Your task to perform on an android device: Open calendar and show me the second week of next month Image 0: 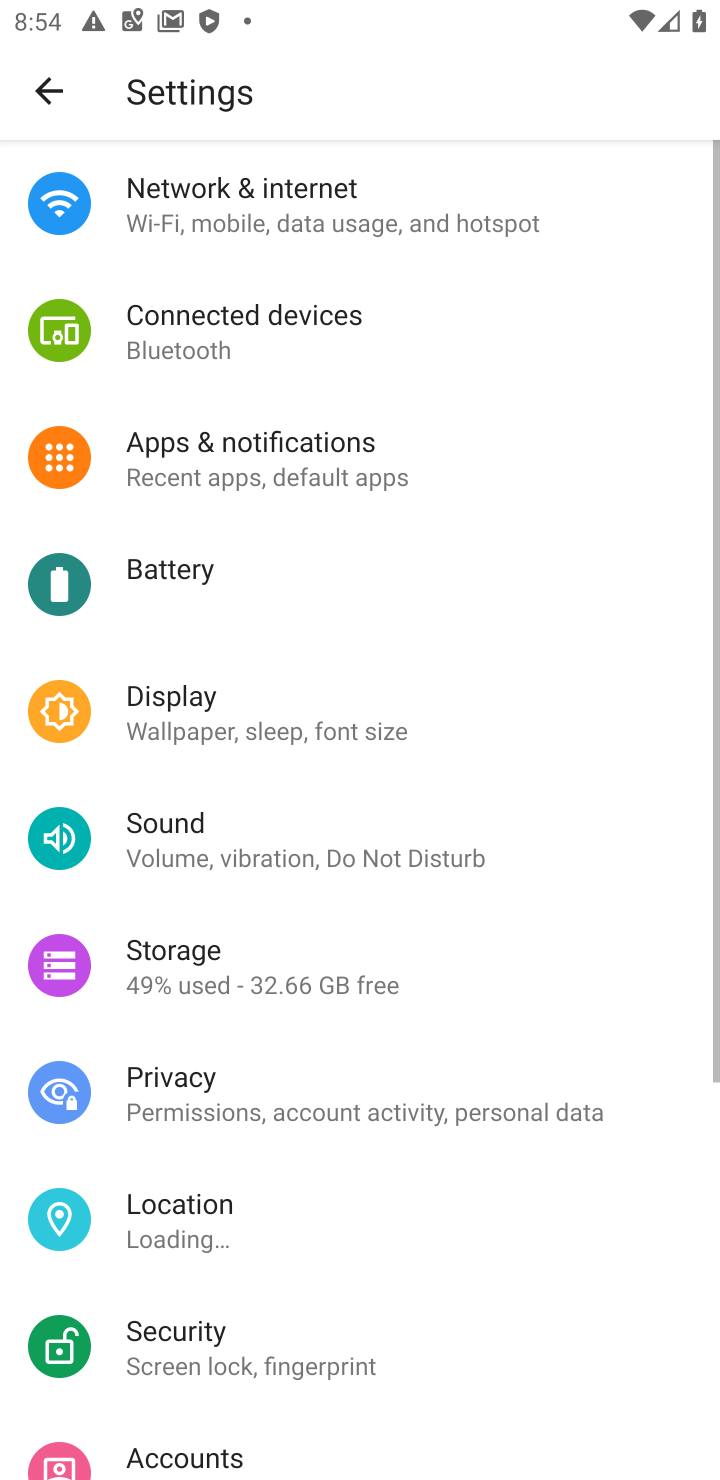
Step 0: press home button
Your task to perform on an android device: Open calendar and show me the second week of next month Image 1: 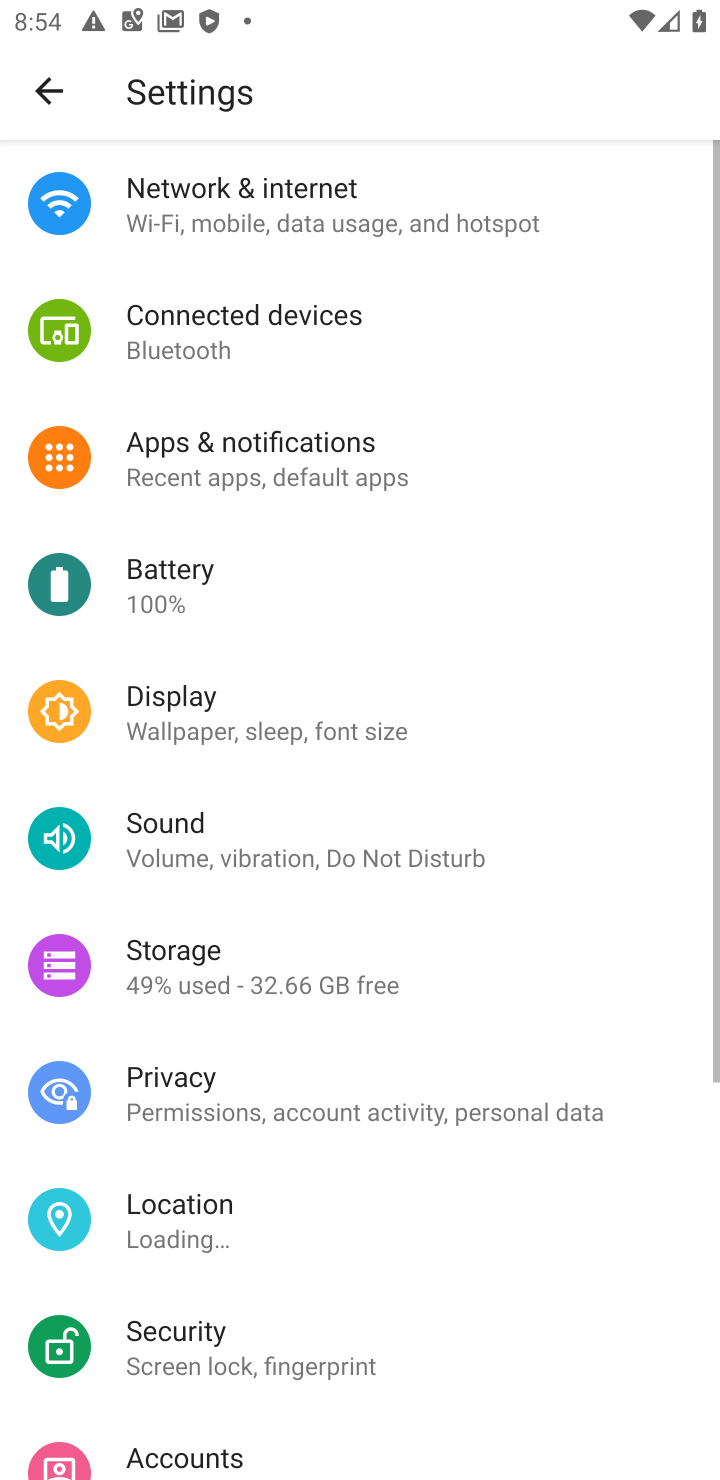
Step 1: press home button
Your task to perform on an android device: Open calendar and show me the second week of next month Image 2: 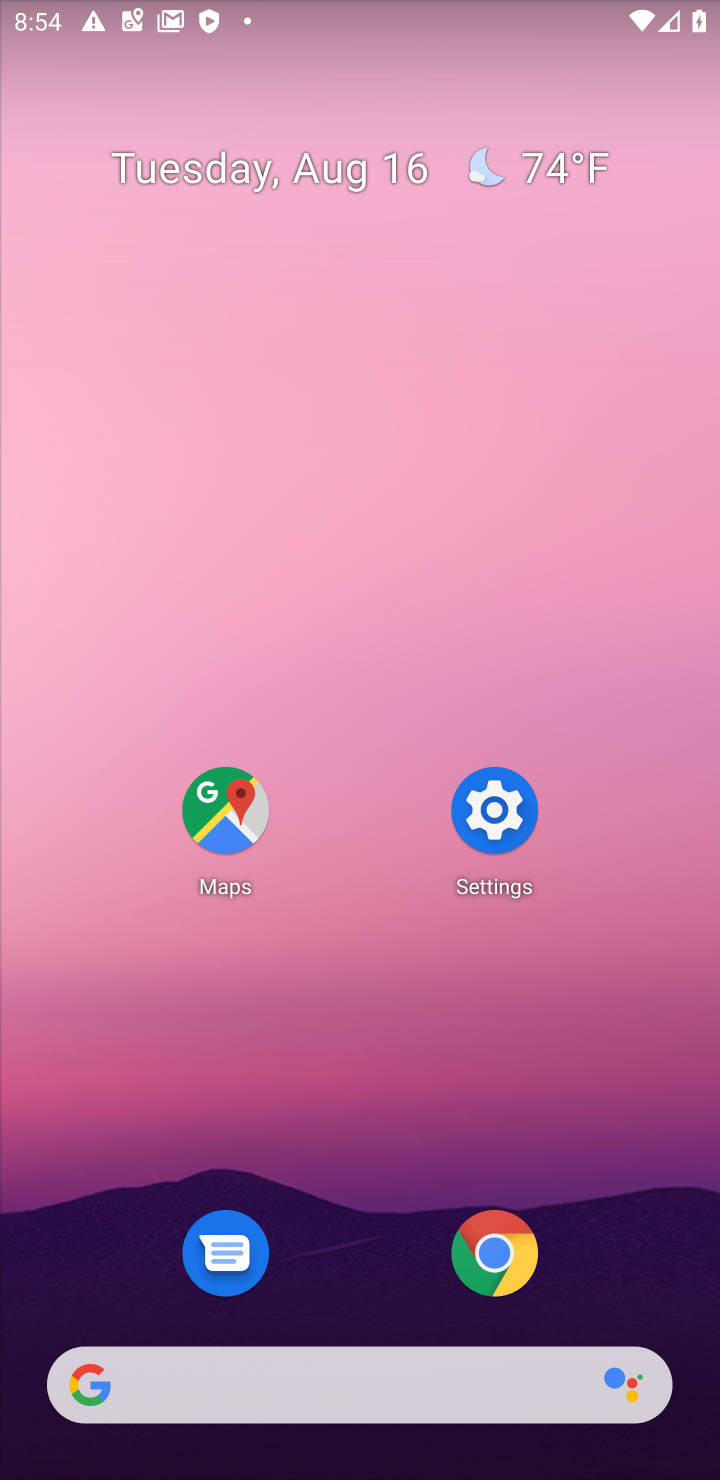
Step 2: drag from (325, 1321) to (692, 163)
Your task to perform on an android device: Open calendar and show me the second week of next month Image 3: 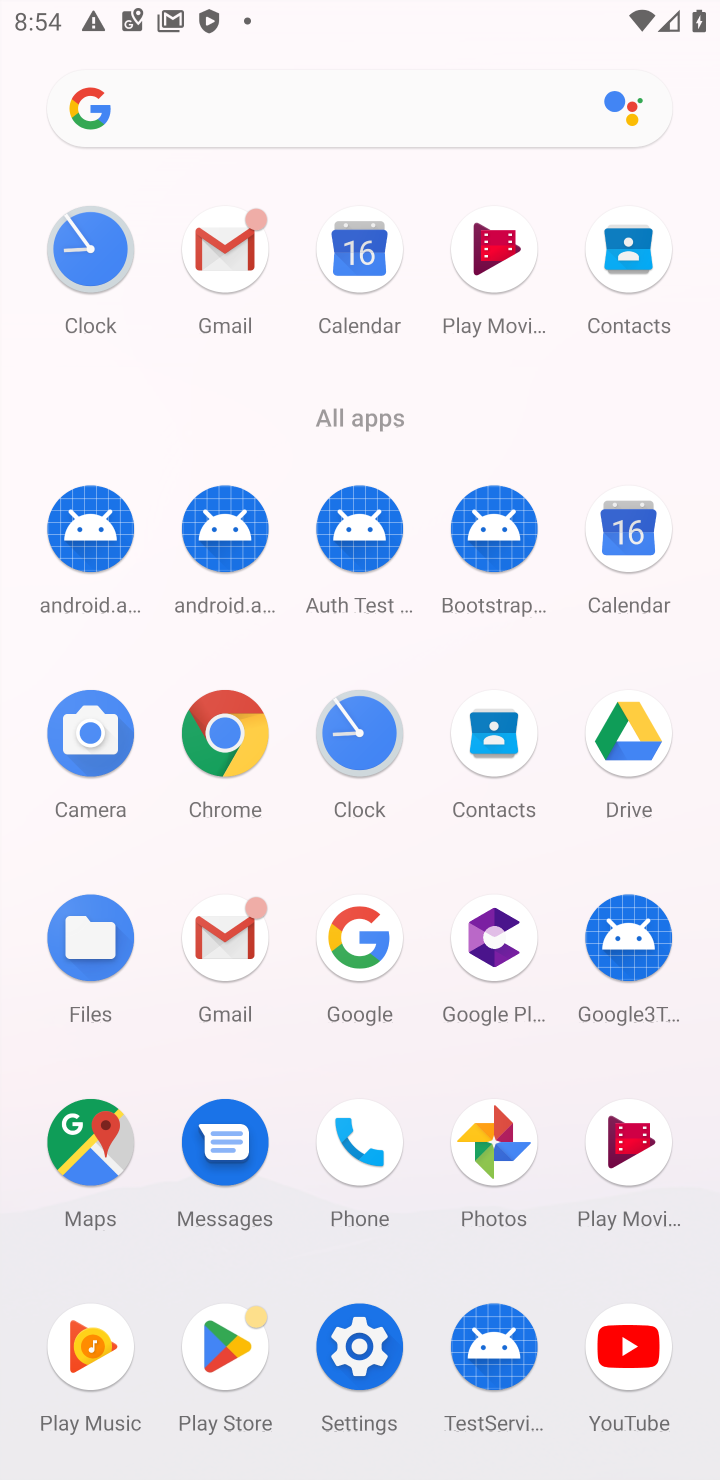
Step 3: click (623, 537)
Your task to perform on an android device: Open calendar and show me the second week of next month Image 4: 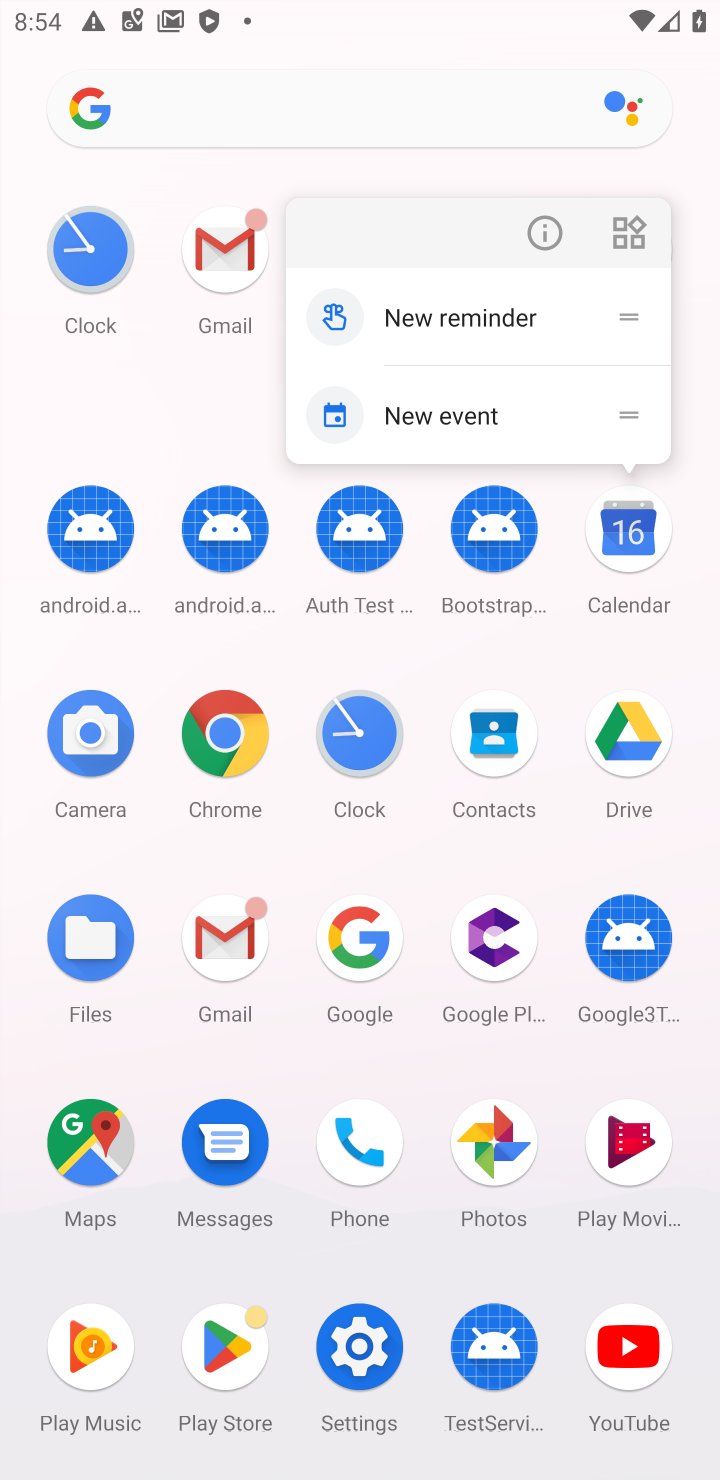
Step 4: click (633, 524)
Your task to perform on an android device: Open calendar and show me the second week of next month Image 5: 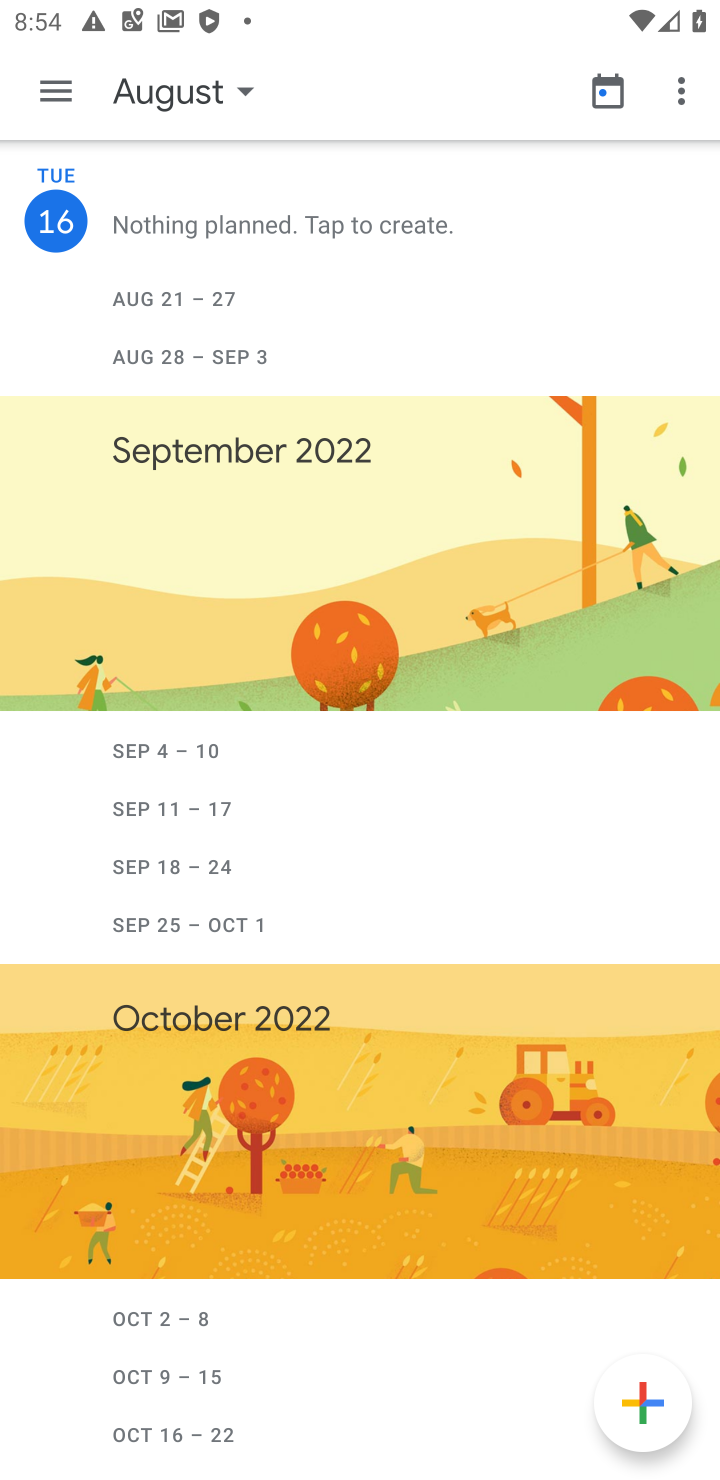
Step 5: drag from (305, 384) to (439, 91)
Your task to perform on an android device: Open calendar and show me the second week of next month Image 6: 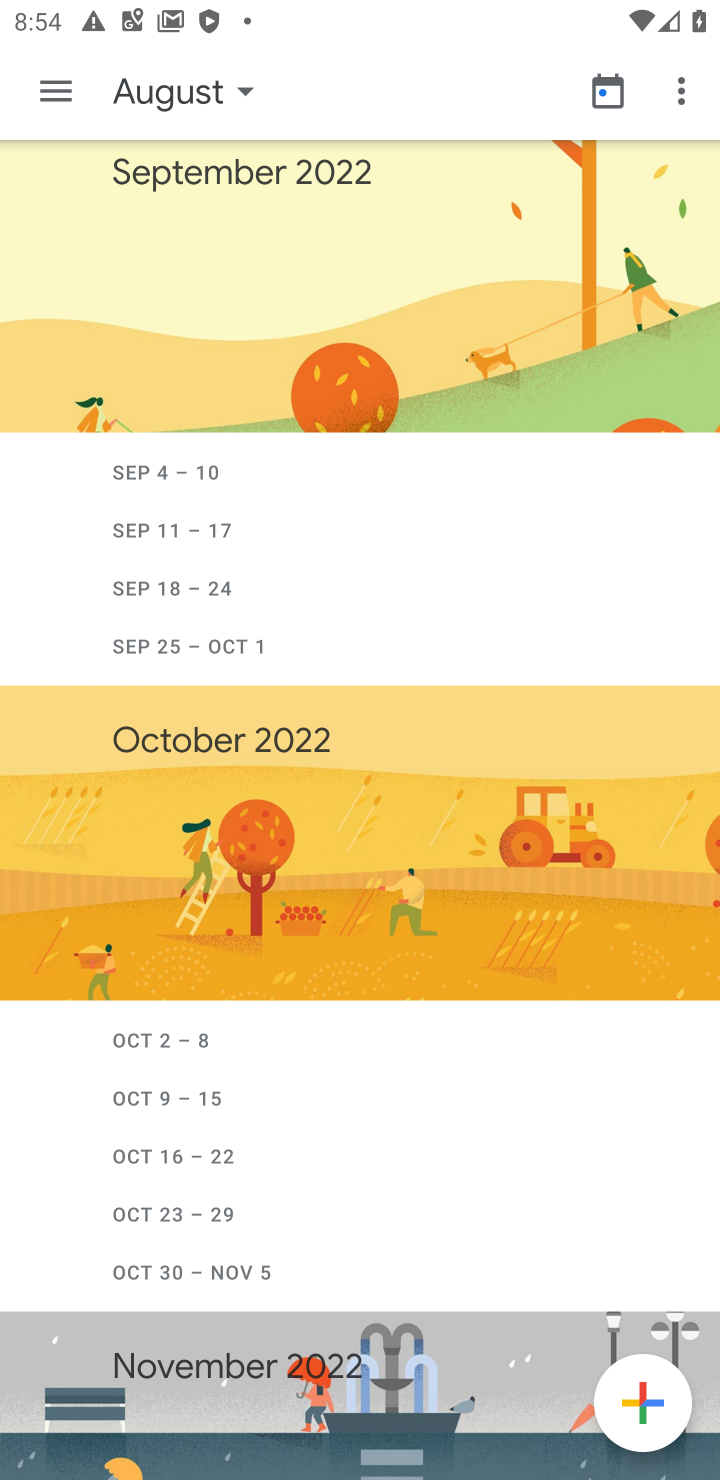
Step 6: click (190, 109)
Your task to perform on an android device: Open calendar and show me the second week of next month Image 7: 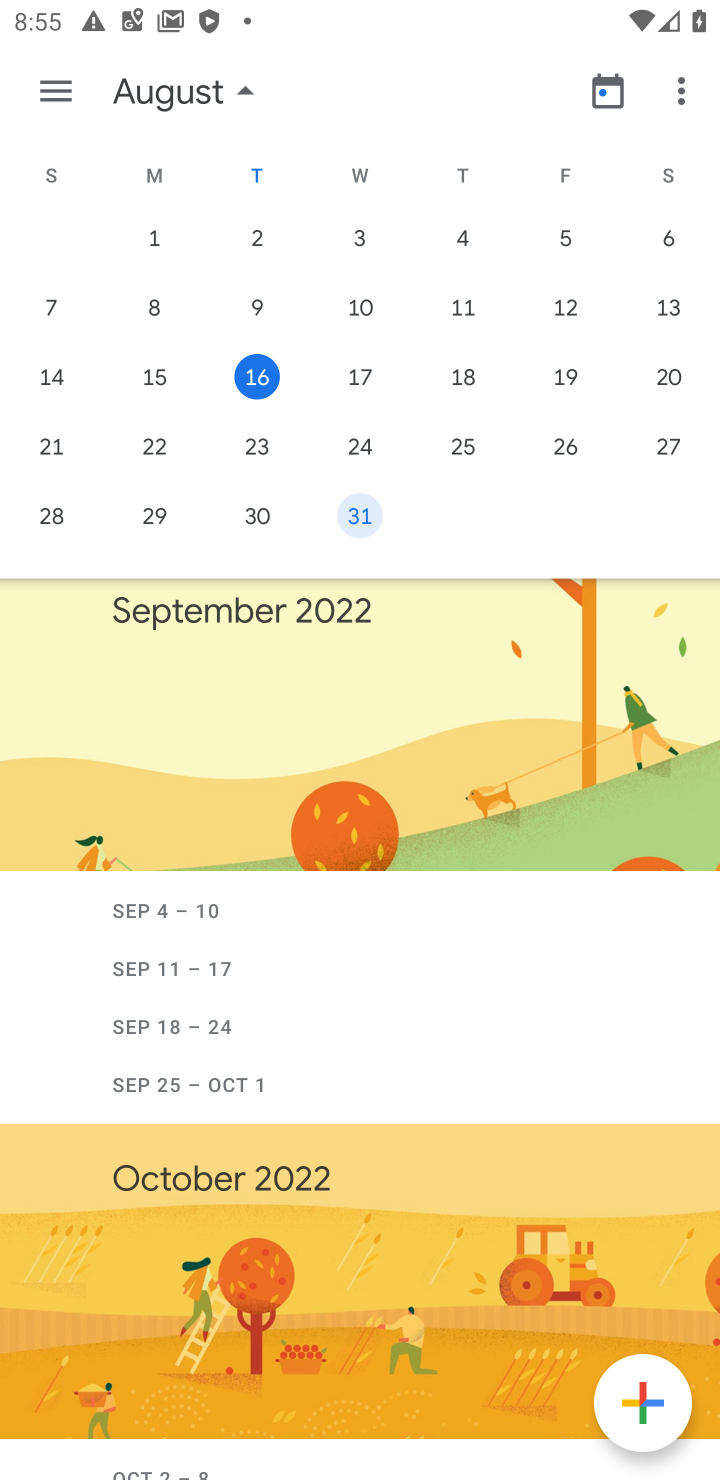
Step 7: drag from (655, 348) to (67, 381)
Your task to perform on an android device: Open calendar and show me the second week of next month Image 8: 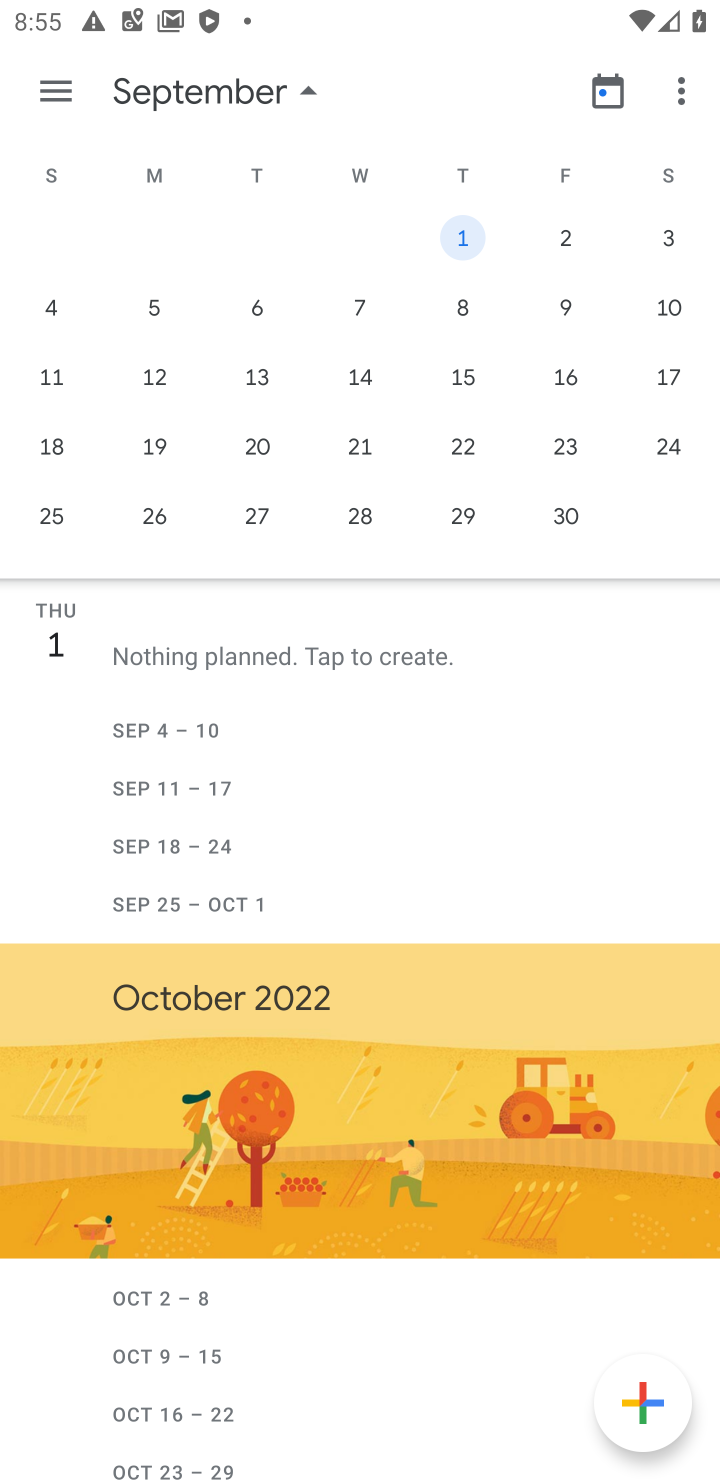
Step 8: click (43, 305)
Your task to perform on an android device: Open calendar and show me the second week of next month Image 9: 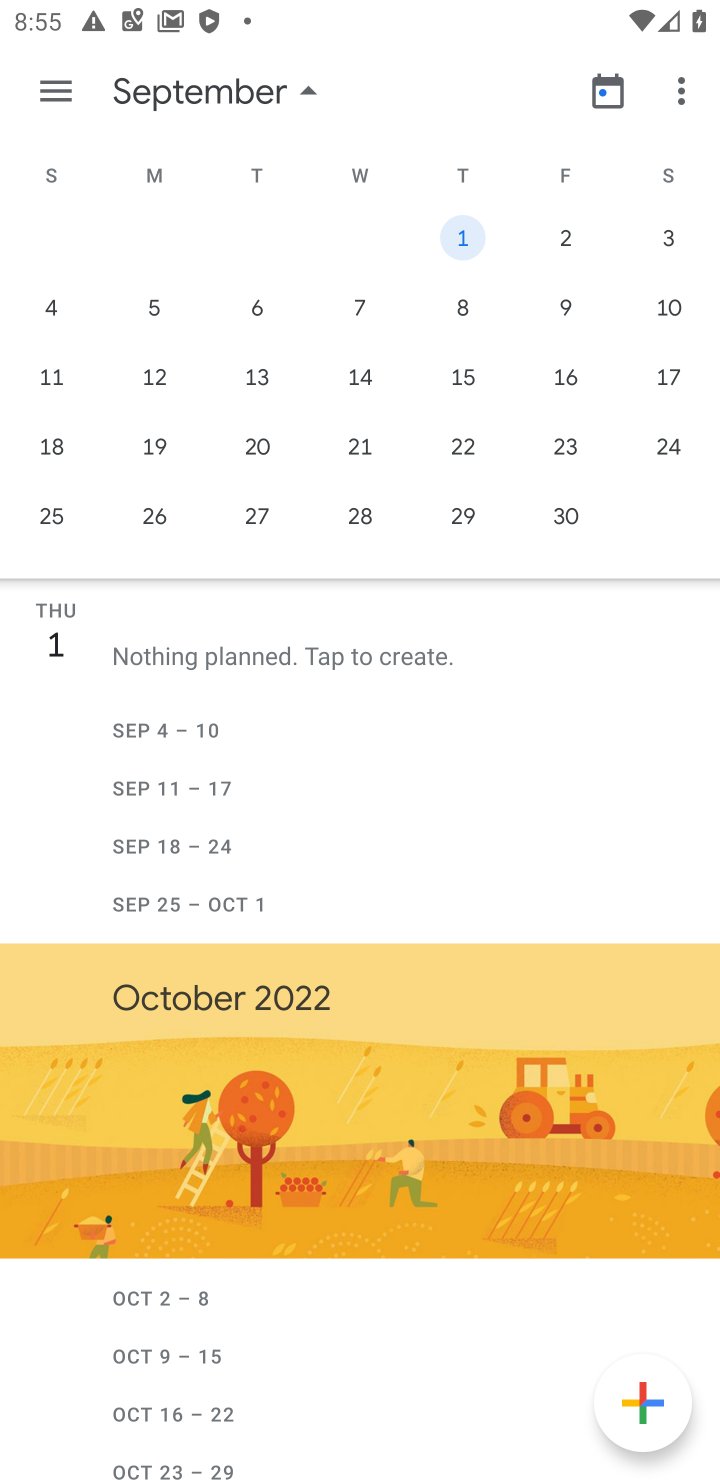
Step 9: click (75, 313)
Your task to perform on an android device: Open calendar and show me the second week of next month Image 10: 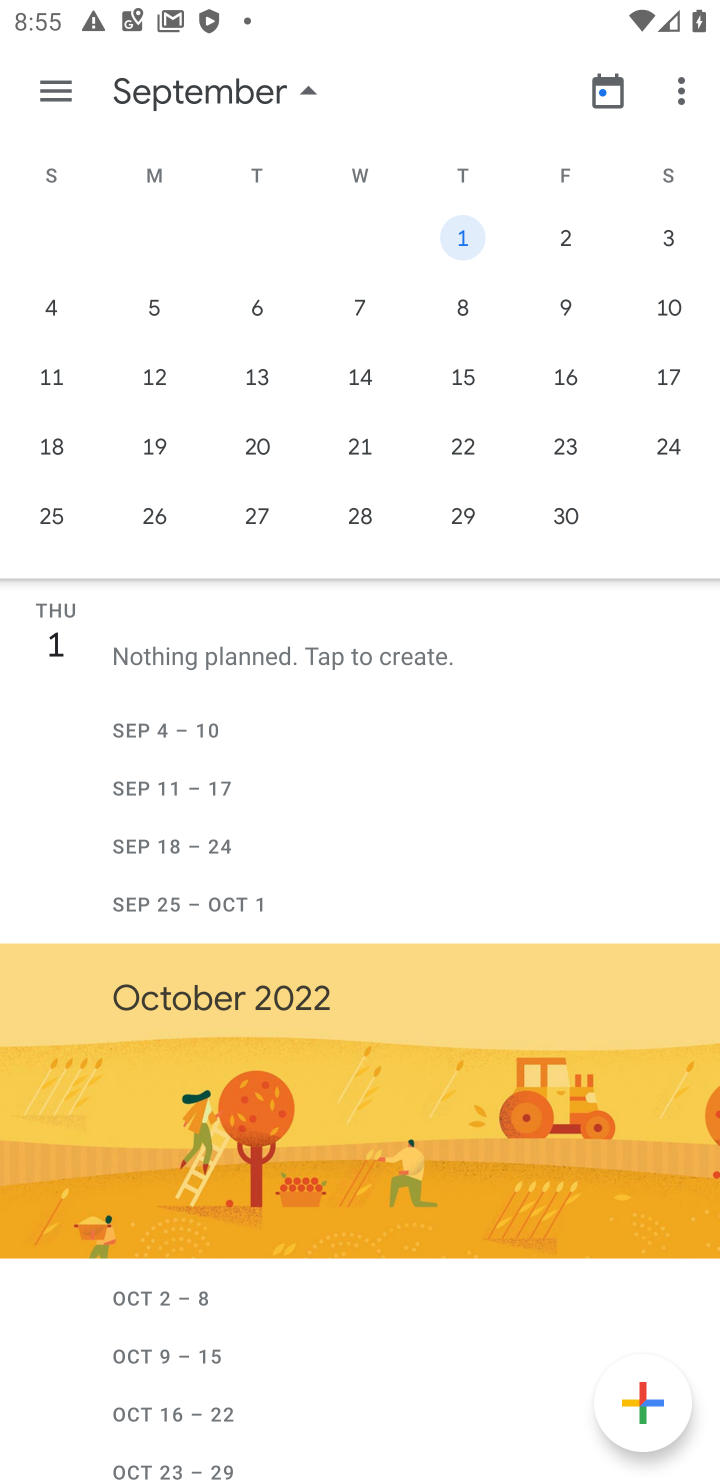
Step 10: click (66, 302)
Your task to perform on an android device: Open calendar and show me the second week of next month Image 11: 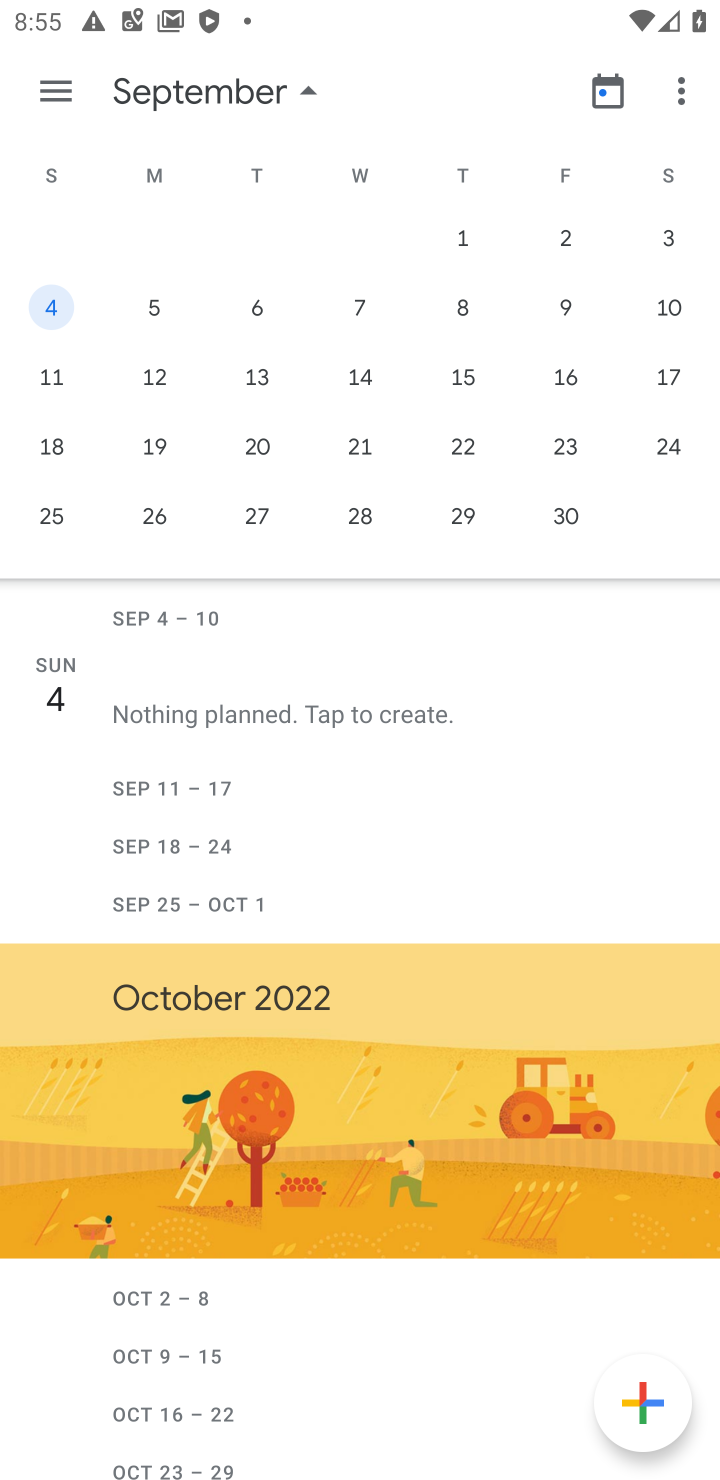
Step 11: click (56, 94)
Your task to perform on an android device: Open calendar and show me the second week of next month Image 12: 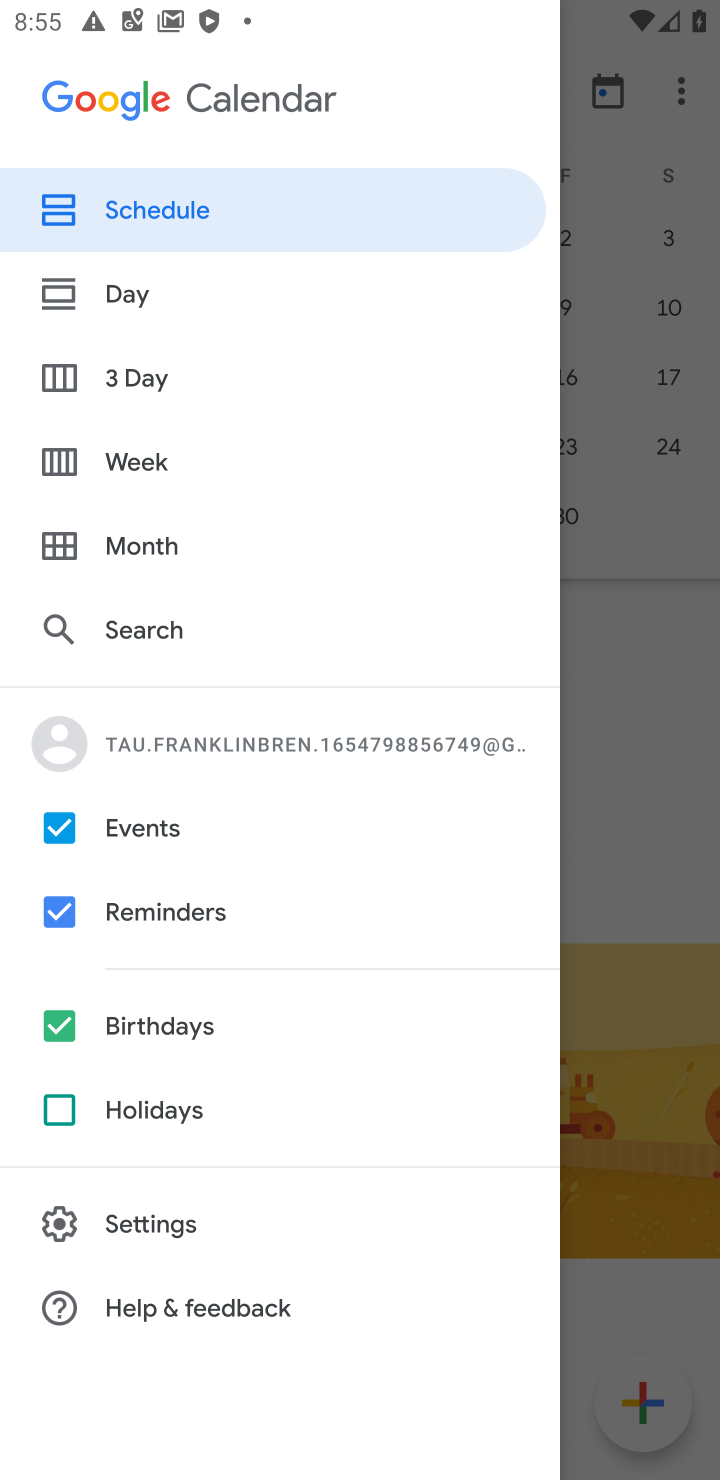
Step 12: click (136, 466)
Your task to perform on an android device: Open calendar and show me the second week of next month Image 13: 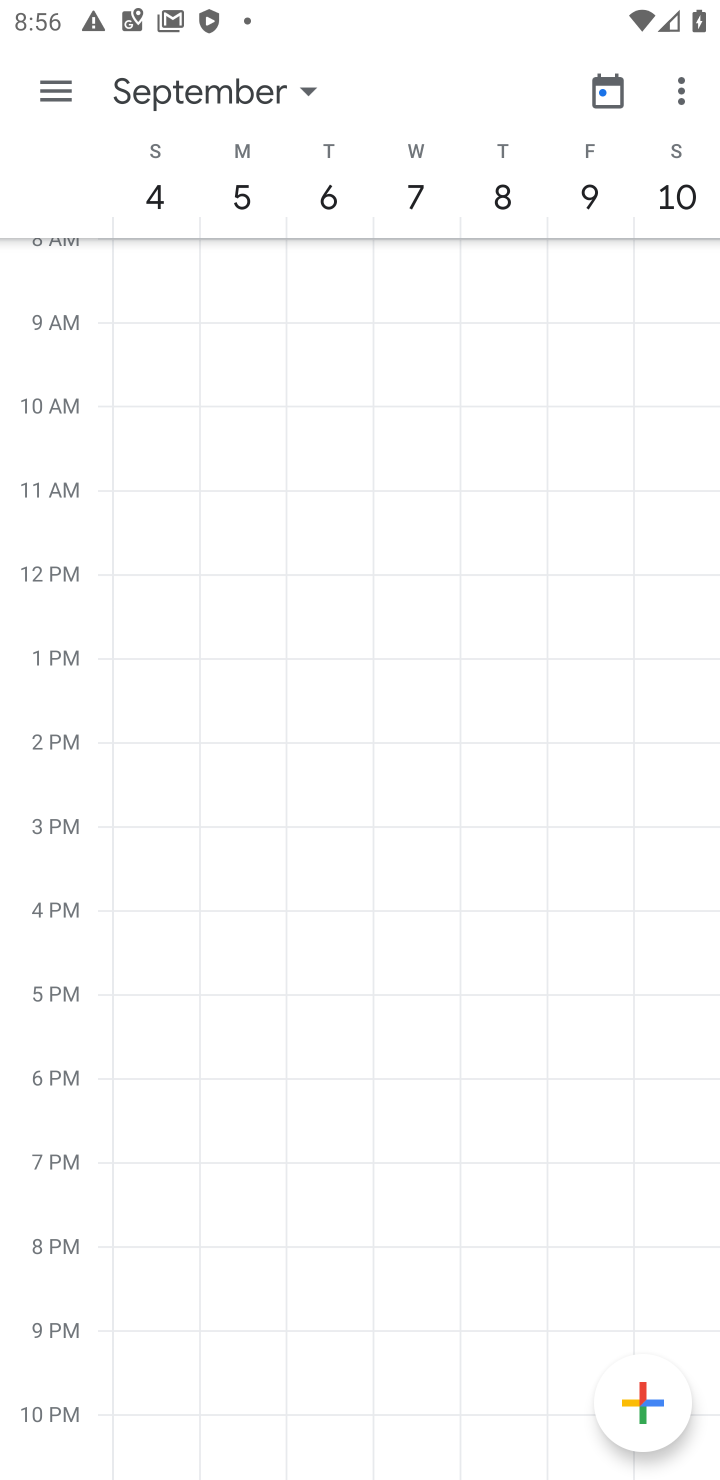
Step 13: task complete